Your task to perform on an android device: Go to CNN.com Image 0: 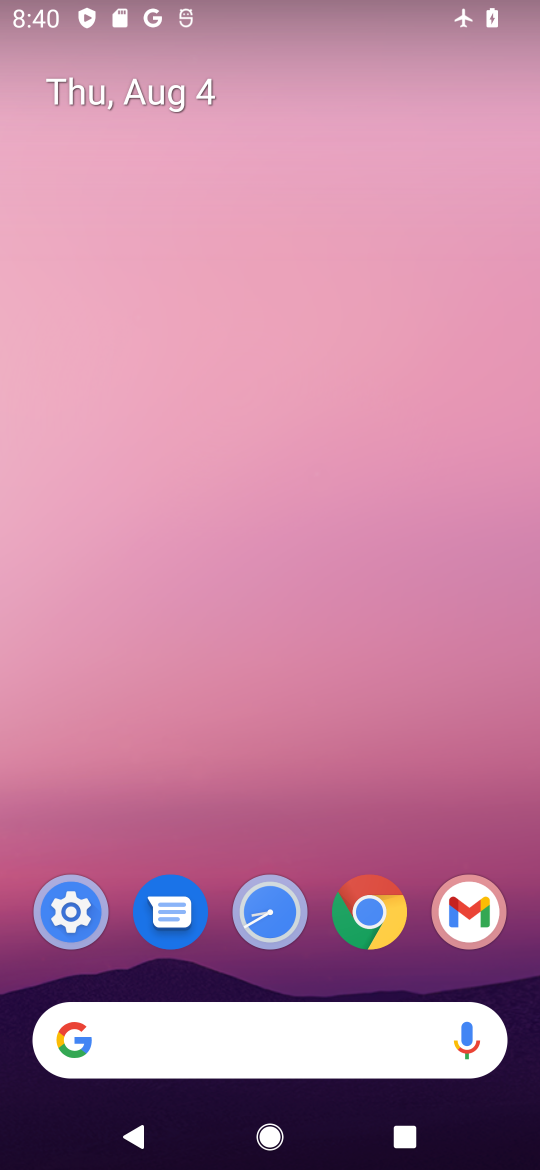
Step 0: click (372, 922)
Your task to perform on an android device: Go to CNN.com Image 1: 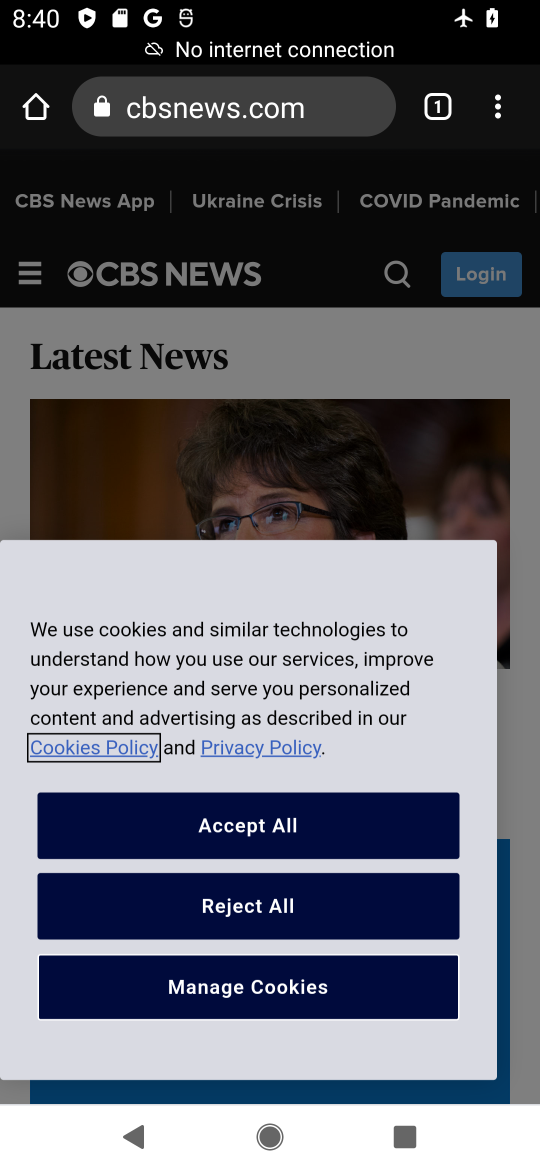
Step 1: click (286, 123)
Your task to perform on an android device: Go to CNN.com Image 2: 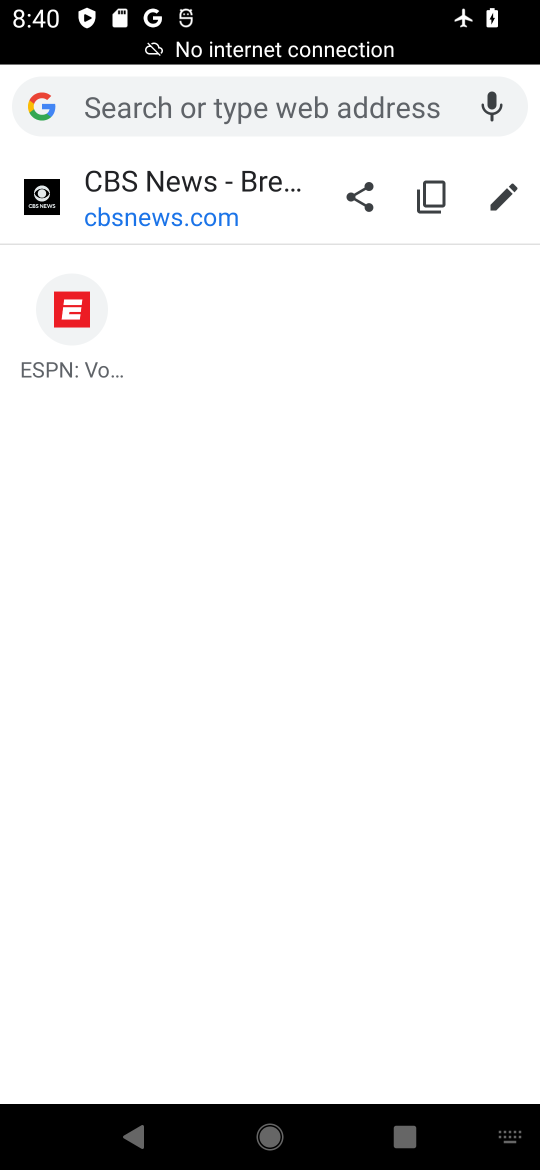
Step 2: type "cnn.com"
Your task to perform on an android device: Go to CNN.com Image 3: 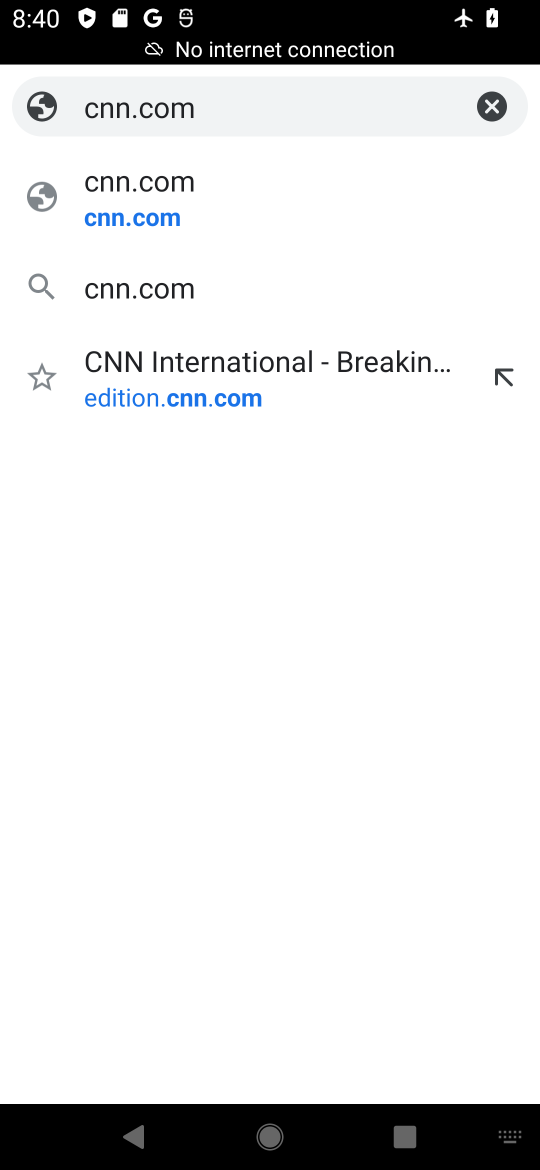
Step 3: click (299, 186)
Your task to perform on an android device: Go to CNN.com Image 4: 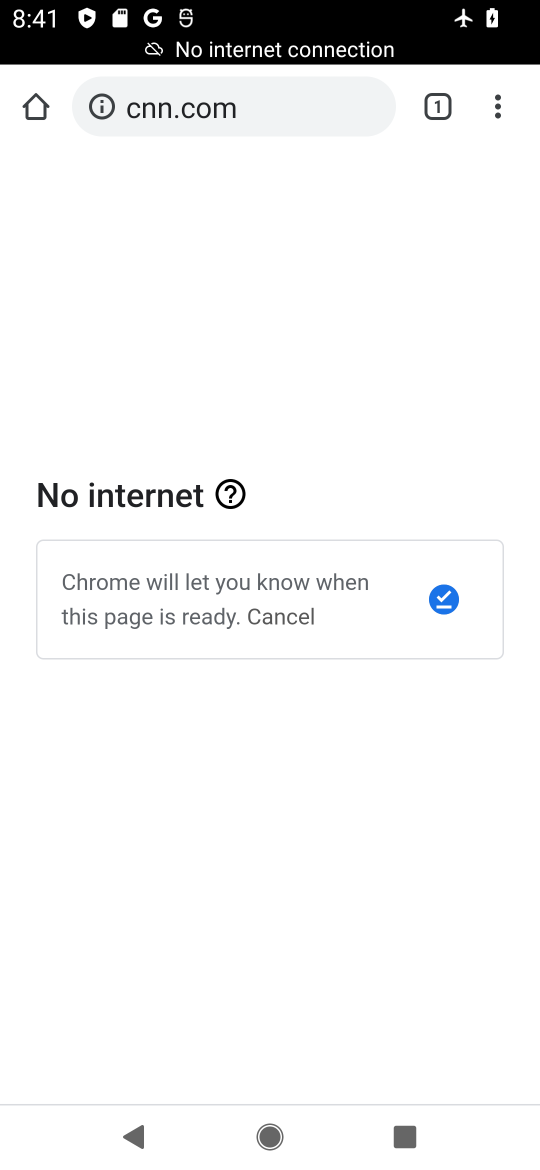
Step 4: task complete